Your task to perform on an android device: turn on airplane mode Image 0: 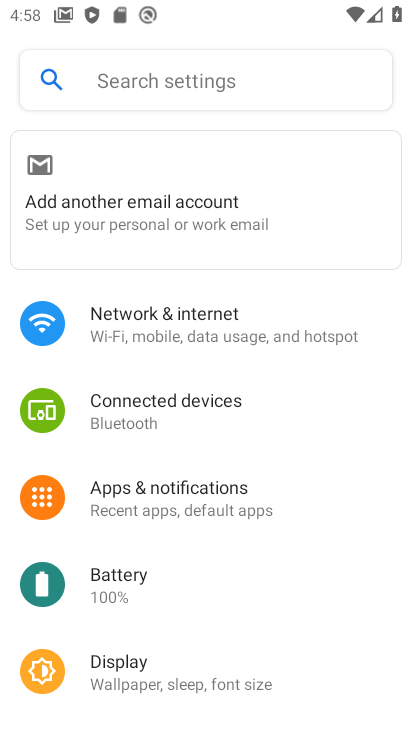
Step 0: click (178, 334)
Your task to perform on an android device: turn on airplane mode Image 1: 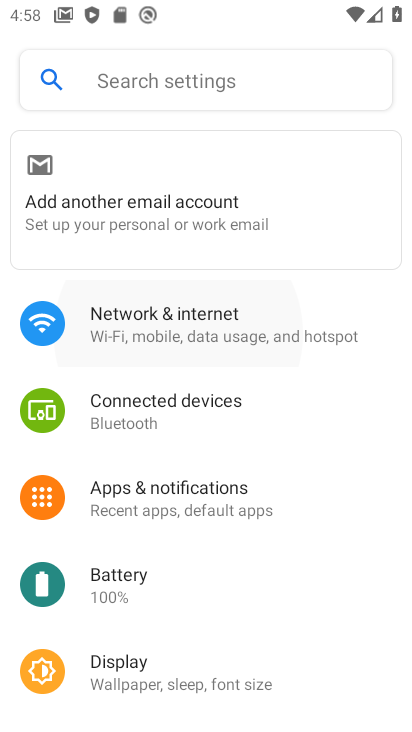
Step 1: click (176, 332)
Your task to perform on an android device: turn on airplane mode Image 2: 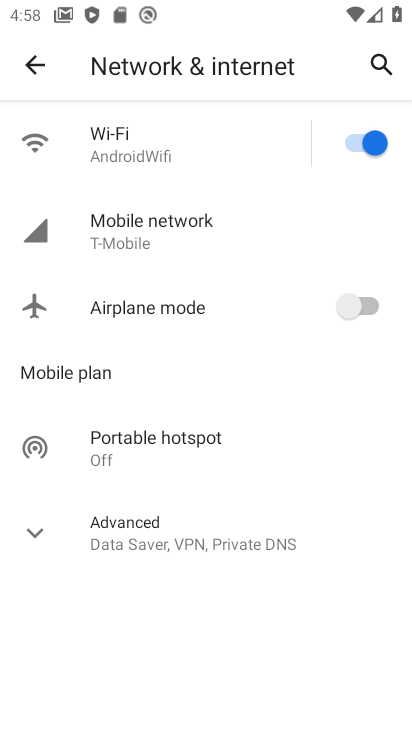
Step 2: click (339, 313)
Your task to perform on an android device: turn on airplane mode Image 3: 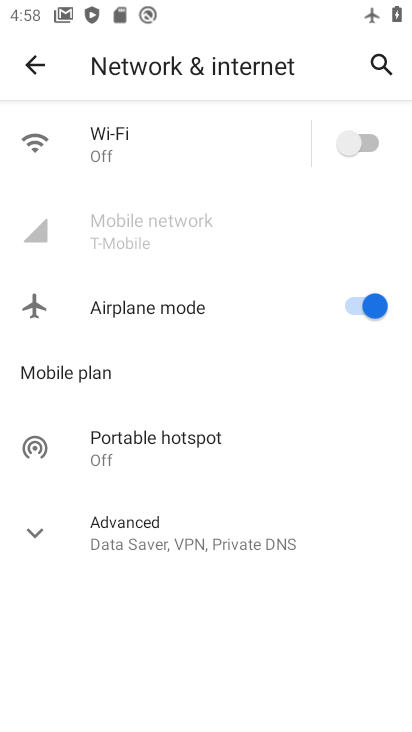
Step 3: task complete